Your task to perform on an android device: turn off priority inbox in the gmail app Image 0: 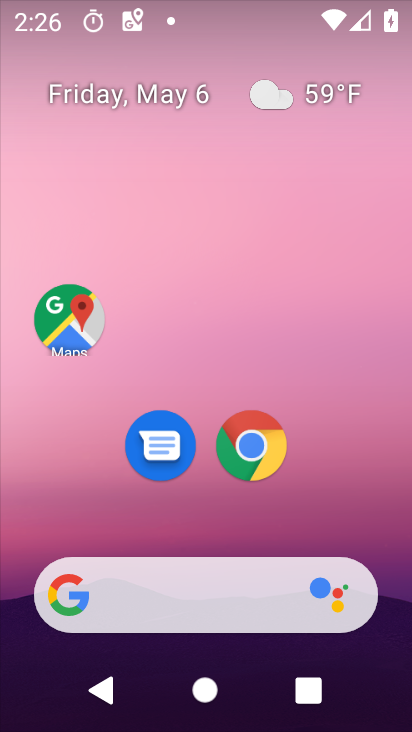
Step 0: drag from (355, 670) to (202, 177)
Your task to perform on an android device: turn off priority inbox in the gmail app Image 1: 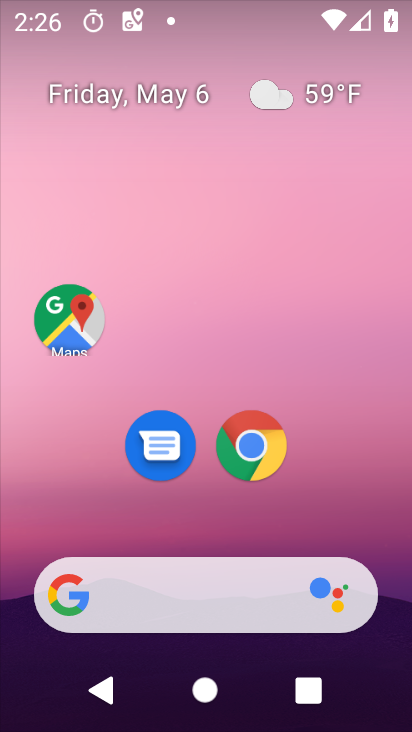
Step 1: drag from (269, 293) to (145, 131)
Your task to perform on an android device: turn off priority inbox in the gmail app Image 2: 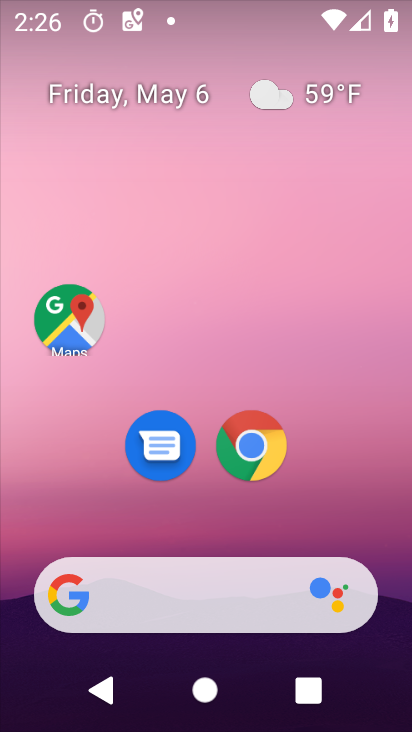
Step 2: drag from (341, 469) to (192, 67)
Your task to perform on an android device: turn off priority inbox in the gmail app Image 3: 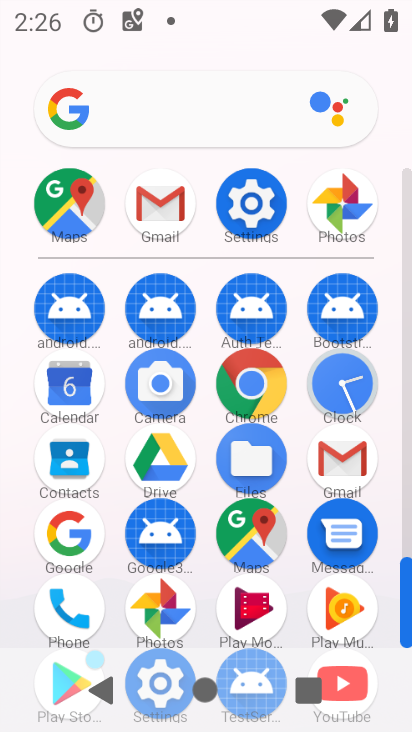
Step 3: click (346, 472)
Your task to perform on an android device: turn off priority inbox in the gmail app Image 4: 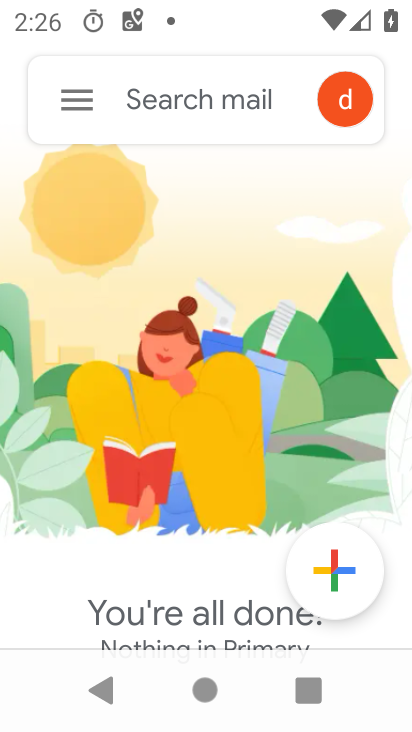
Step 4: click (81, 98)
Your task to perform on an android device: turn off priority inbox in the gmail app Image 5: 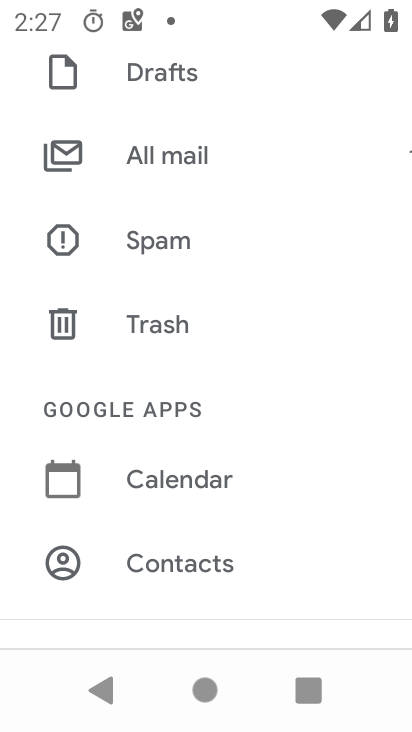
Step 5: drag from (265, 567) to (185, 140)
Your task to perform on an android device: turn off priority inbox in the gmail app Image 6: 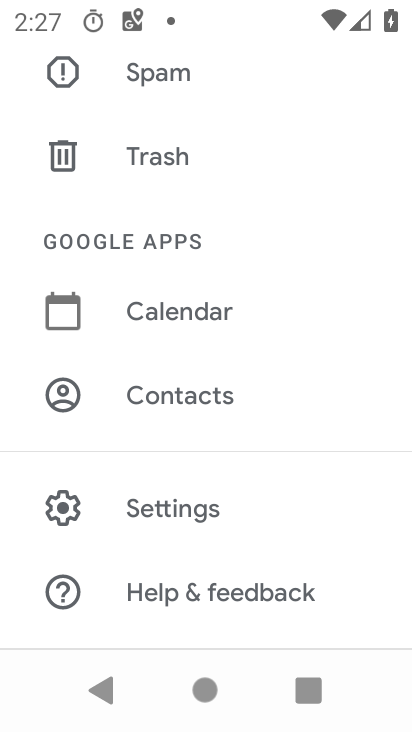
Step 6: click (154, 499)
Your task to perform on an android device: turn off priority inbox in the gmail app Image 7: 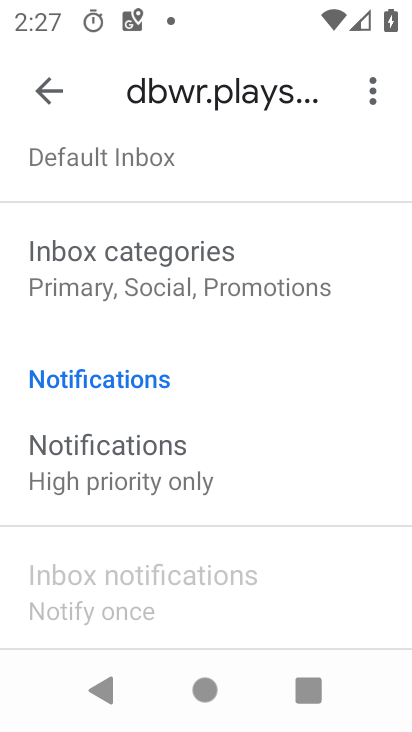
Step 7: drag from (151, 480) to (144, 186)
Your task to perform on an android device: turn off priority inbox in the gmail app Image 8: 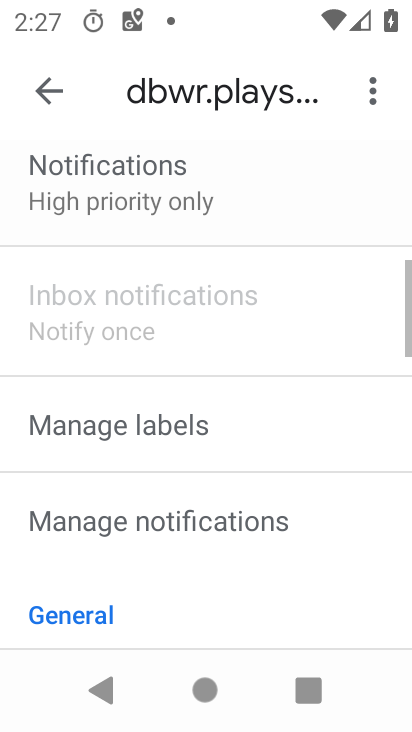
Step 8: drag from (203, 437) to (131, 177)
Your task to perform on an android device: turn off priority inbox in the gmail app Image 9: 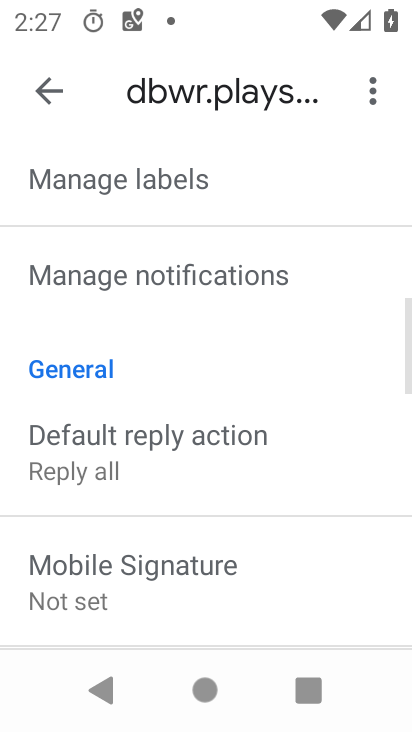
Step 9: drag from (154, 451) to (130, 149)
Your task to perform on an android device: turn off priority inbox in the gmail app Image 10: 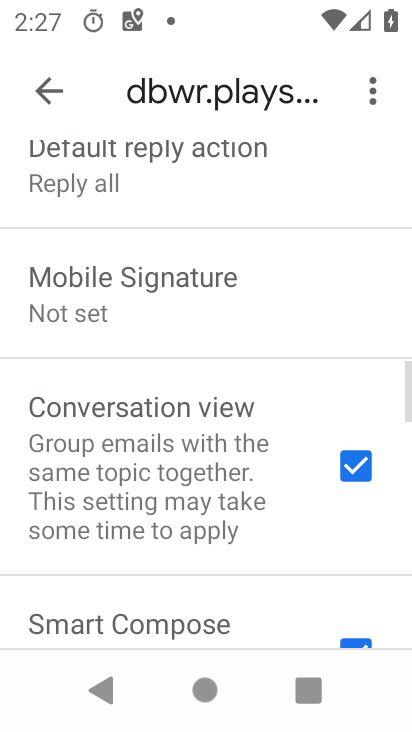
Step 10: drag from (138, 386) to (144, 235)
Your task to perform on an android device: turn off priority inbox in the gmail app Image 11: 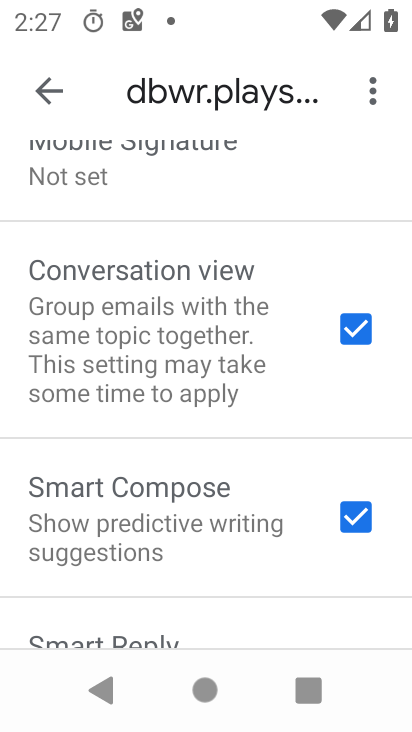
Step 11: drag from (104, 251) to (159, 517)
Your task to perform on an android device: turn off priority inbox in the gmail app Image 12: 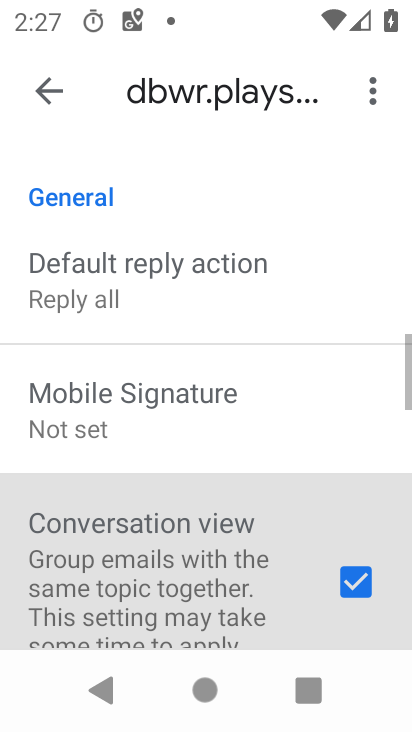
Step 12: drag from (117, 302) to (134, 554)
Your task to perform on an android device: turn off priority inbox in the gmail app Image 13: 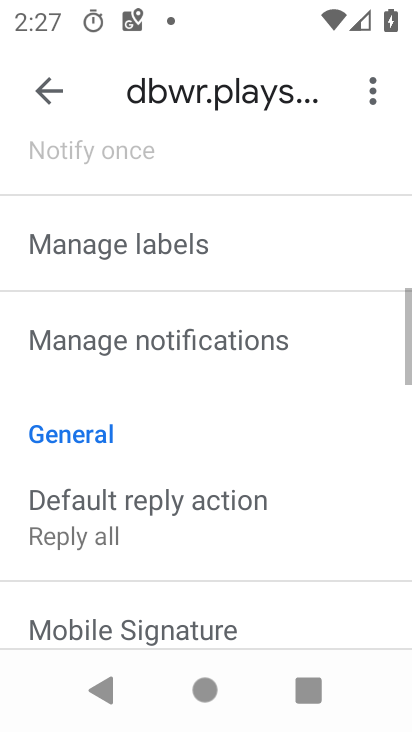
Step 13: drag from (140, 430) to (167, 556)
Your task to perform on an android device: turn off priority inbox in the gmail app Image 14: 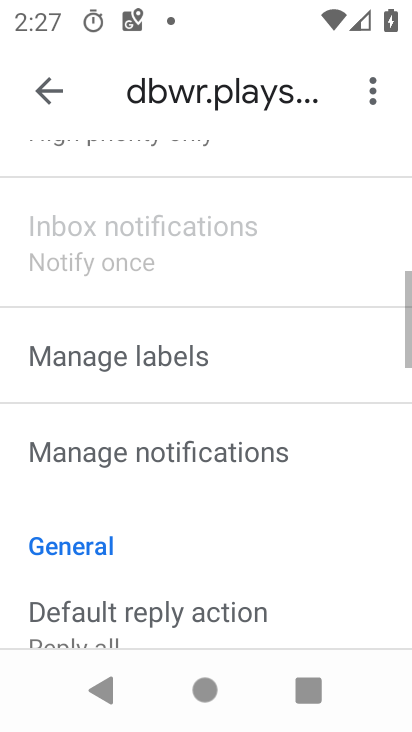
Step 14: drag from (170, 316) to (233, 514)
Your task to perform on an android device: turn off priority inbox in the gmail app Image 15: 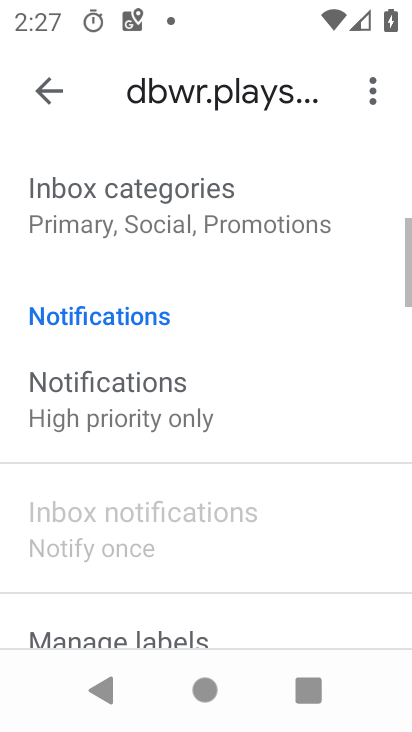
Step 15: drag from (201, 314) to (241, 540)
Your task to perform on an android device: turn off priority inbox in the gmail app Image 16: 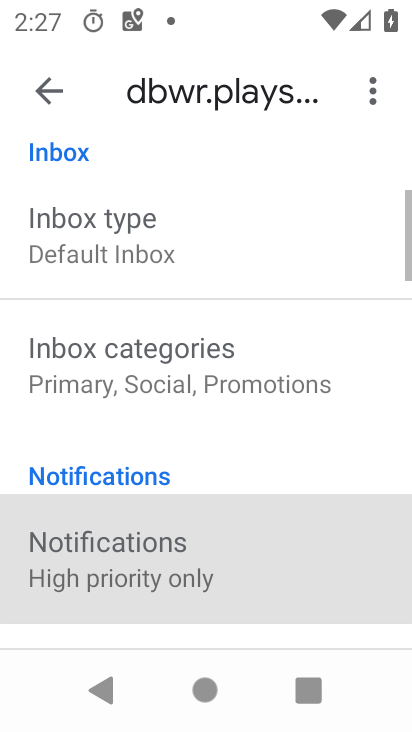
Step 16: drag from (153, 336) to (206, 482)
Your task to perform on an android device: turn off priority inbox in the gmail app Image 17: 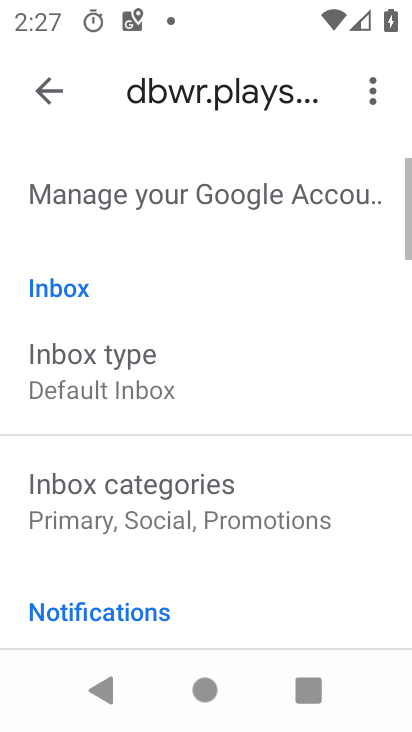
Step 17: drag from (212, 405) to (261, 591)
Your task to perform on an android device: turn off priority inbox in the gmail app Image 18: 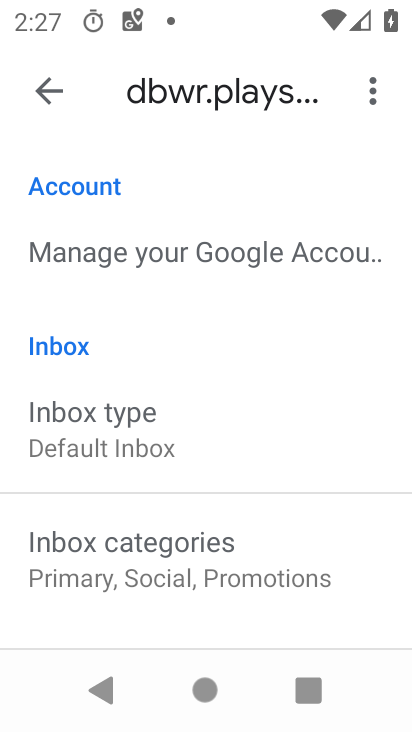
Step 18: click (86, 439)
Your task to perform on an android device: turn off priority inbox in the gmail app Image 19: 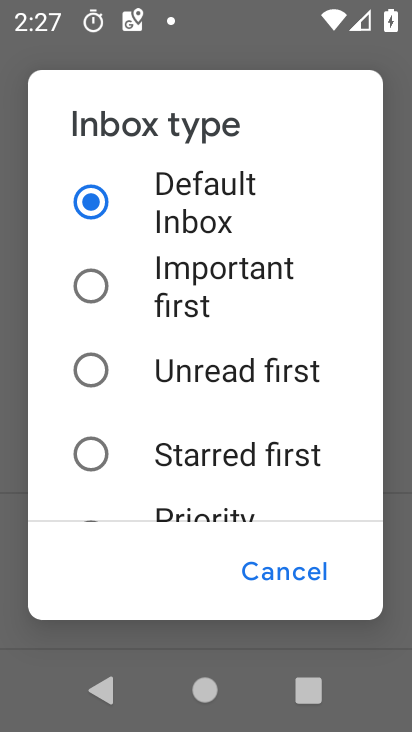
Step 19: drag from (172, 432) to (144, 118)
Your task to perform on an android device: turn off priority inbox in the gmail app Image 20: 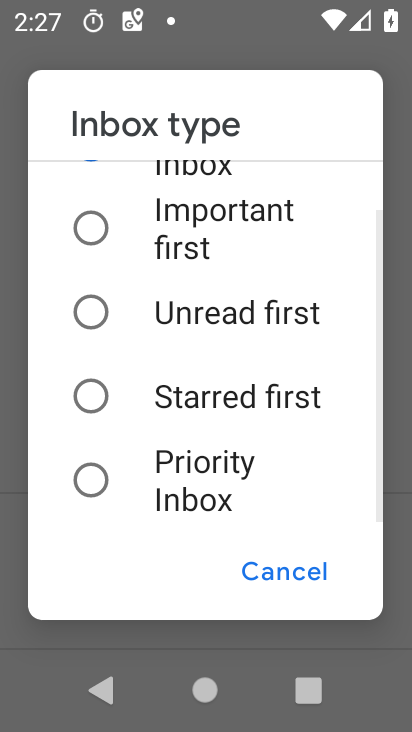
Step 20: click (91, 474)
Your task to perform on an android device: turn off priority inbox in the gmail app Image 21: 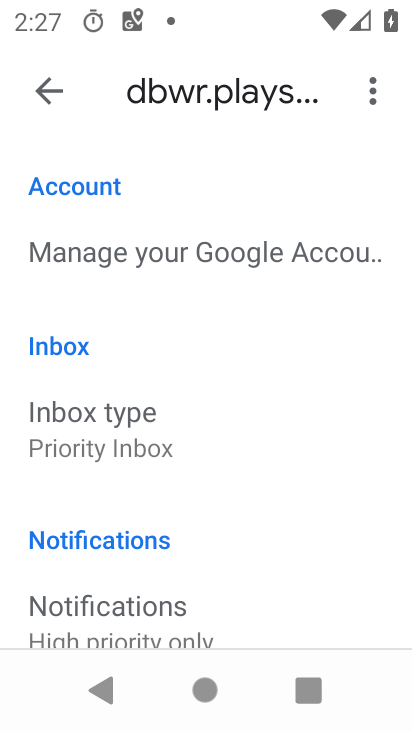
Step 21: task complete